Your task to perform on an android device: Open calendar and show me the second week of next month Image 0: 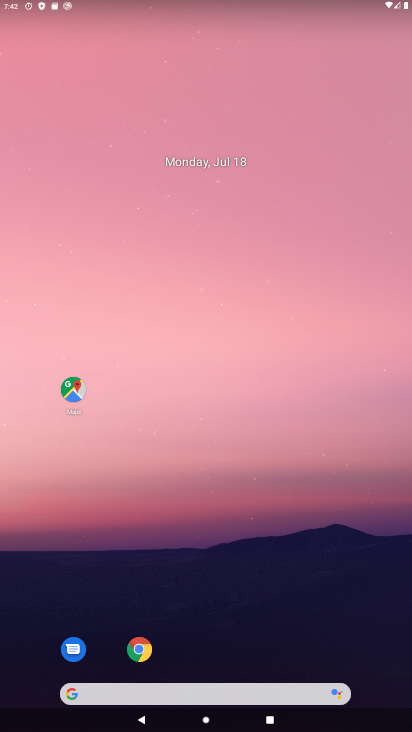
Step 0: drag from (288, 276) to (260, 73)
Your task to perform on an android device: Open calendar and show me the second week of next month Image 1: 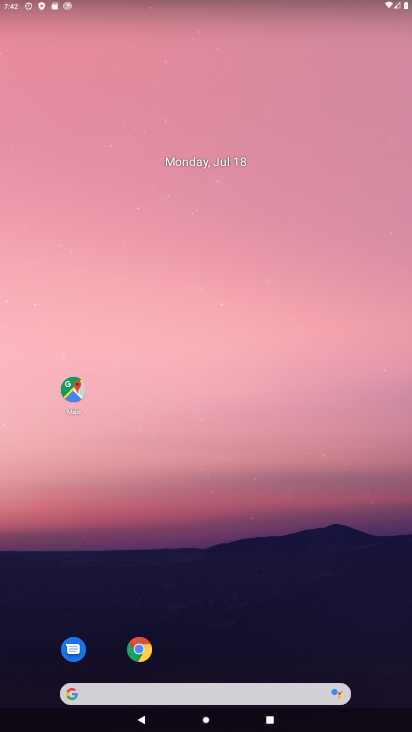
Step 1: drag from (362, 634) to (272, 55)
Your task to perform on an android device: Open calendar and show me the second week of next month Image 2: 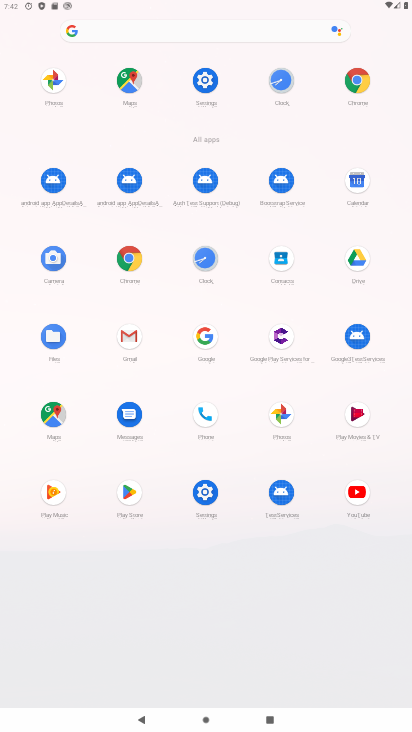
Step 2: click (352, 173)
Your task to perform on an android device: Open calendar and show me the second week of next month Image 3: 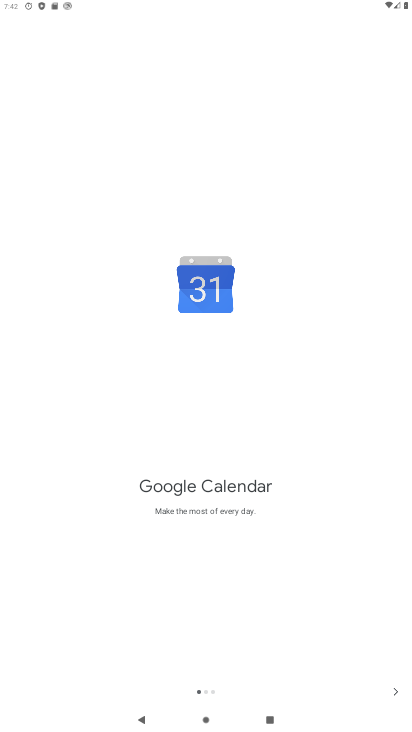
Step 3: click (394, 685)
Your task to perform on an android device: Open calendar and show me the second week of next month Image 4: 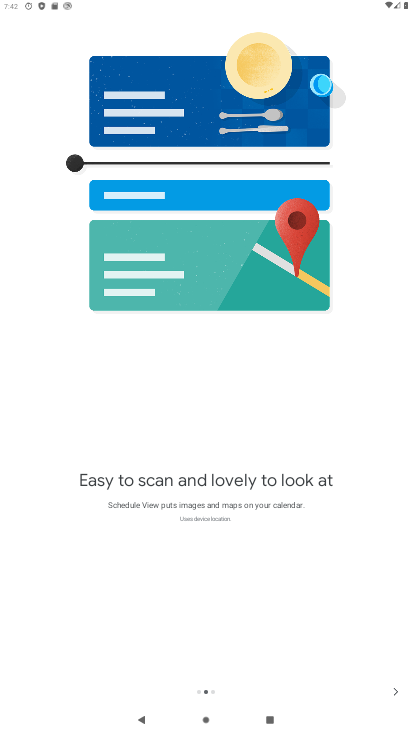
Step 4: click (394, 685)
Your task to perform on an android device: Open calendar and show me the second week of next month Image 5: 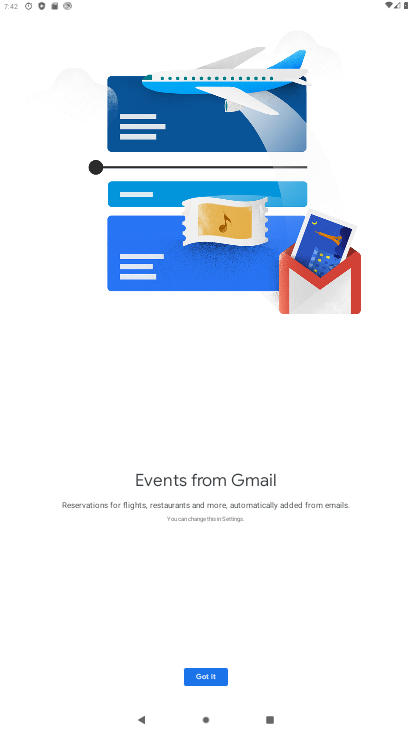
Step 5: click (208, 688)
Your task to perform on an android device: Open calendar and show me the second week of next month Image 6: 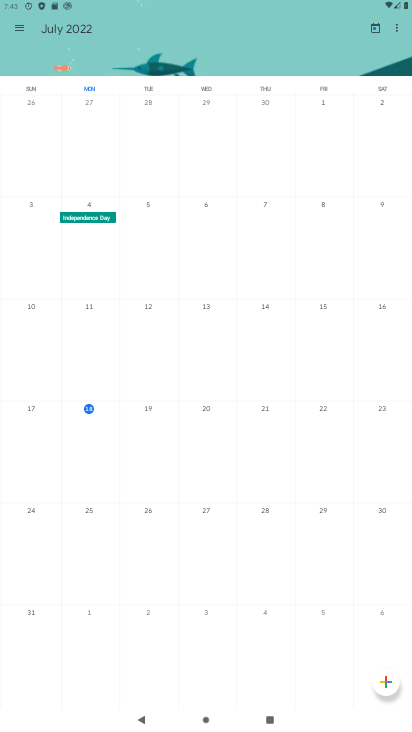
Step 6: drag from (398, 289) to (41, 251)
Your task to perform on an android device: Open calendar and show me the second week of next month Image 7: 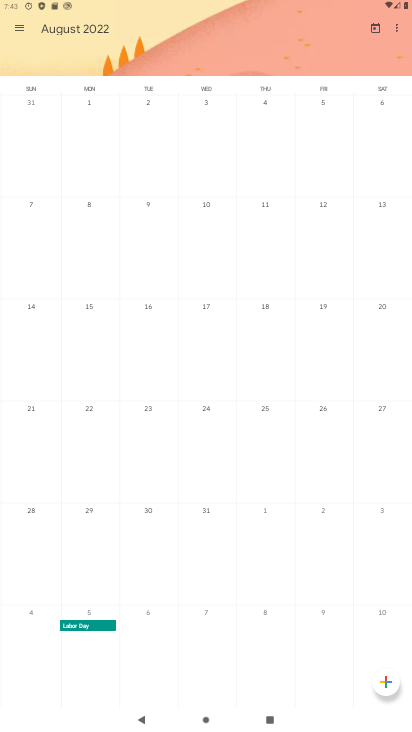
Step 7: click (211, 206)
Your task to perform on an android device: Open calendar and show me the second week of next month Image 8: 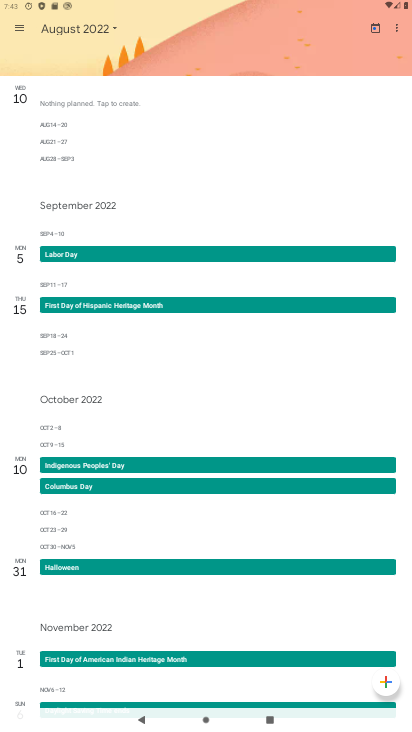
Step 8: click (23, 24)
Your task to perform on an android device: Open calendar and show me the second week of next month Image 9: 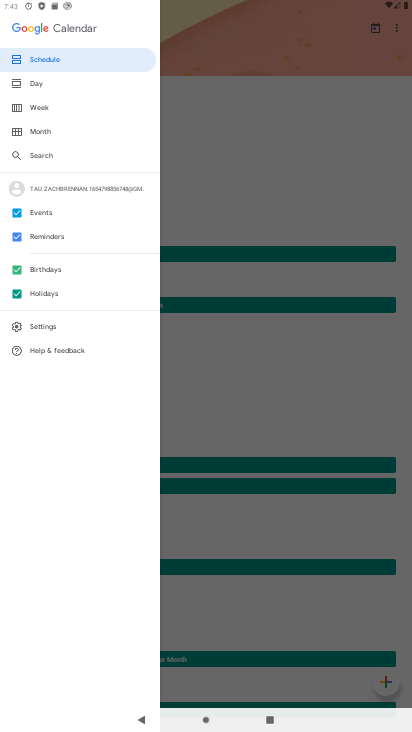
Step 9: click (50, 109)
Your task to perform on an android device: Open calendar and show me the second week of next month Image 10: 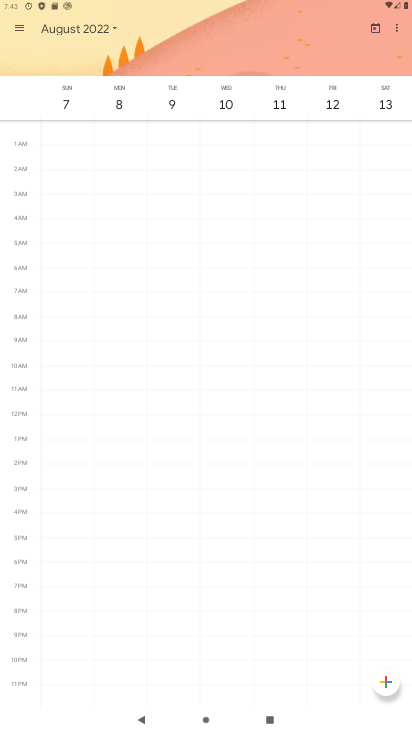
Step 10: task complete